Your task to perform on an android device: change text size in settings app Image 0: 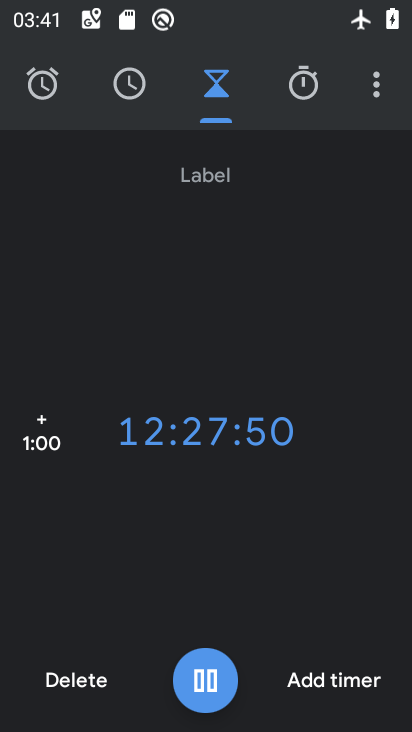
Step 0: press home button
Your task to perform on an android device: change text size in settings app Image 1: 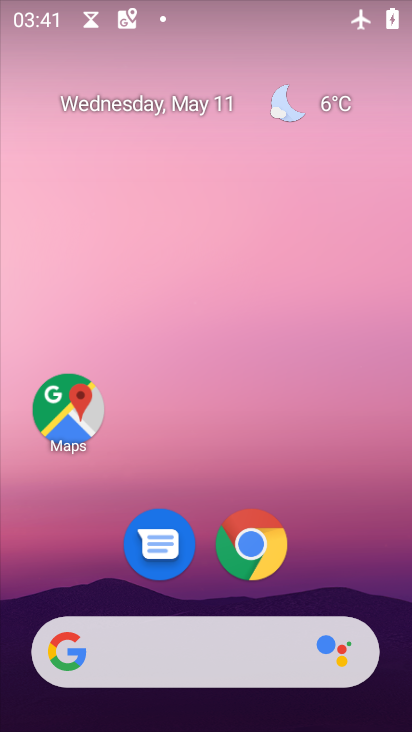
Step 1: drag from (339, 535) to (367, 98)
Your task to perform on an android device: change text size in settings app Image 2: 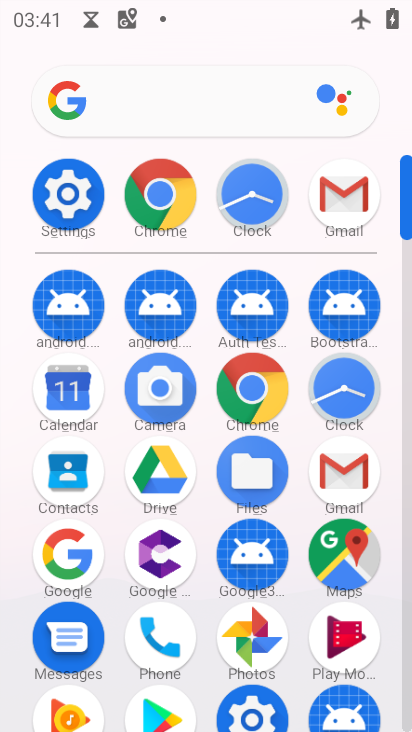
Step 2: click (76, 203)
Your task to perform on an android device: change text size in settings app Image 3: 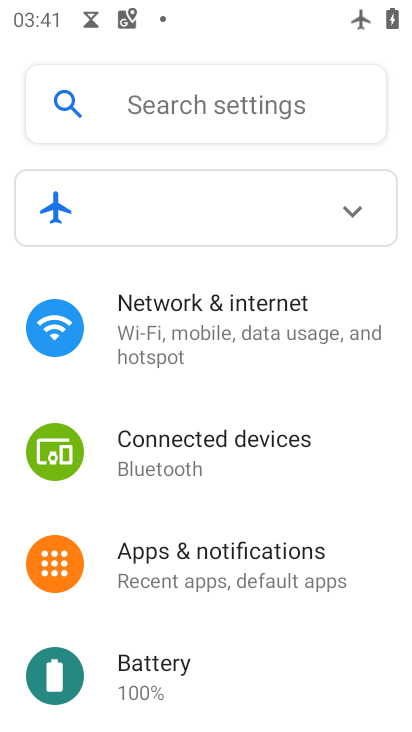
Step 3: drag from (190, 614) to (216, 443)
Your task to perform on an android device: change text size in settings app Image 4: 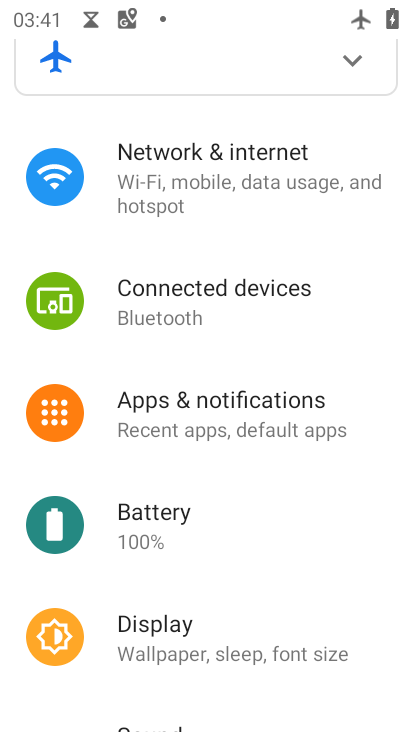
Step 4: click (226, 658)
Your task to perform on an android device: change text size in settings app Image 5: 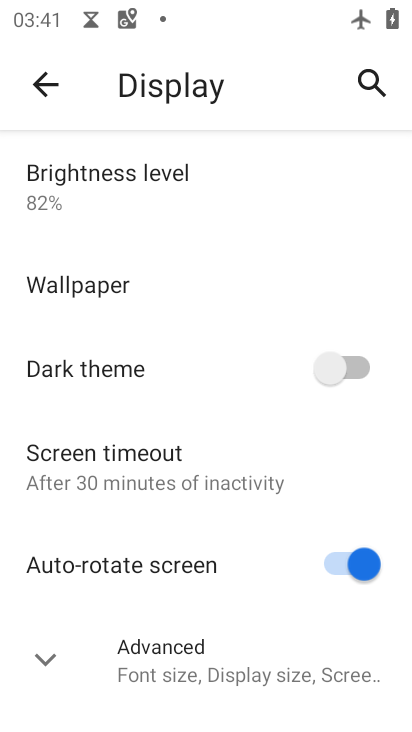
Step 5: click (225, 670)
Your task to perform on an android device: change text size in settings app Image 6: 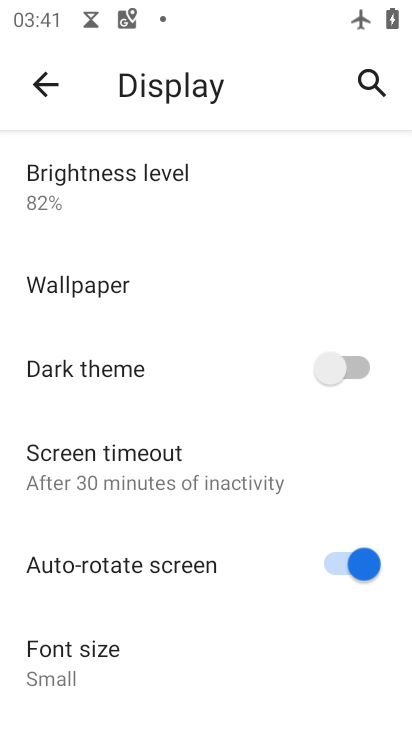
Step 6: drag from (220, 662) to (227, 353)
Your task to perform on an android device: change text size in settings app Image 7: 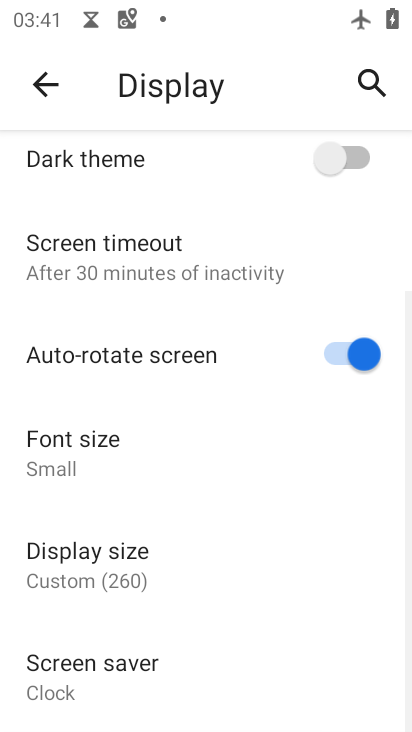
Step 7: click (138, 459)
Your task to perform on an android device: change text size in settings app Image 8: 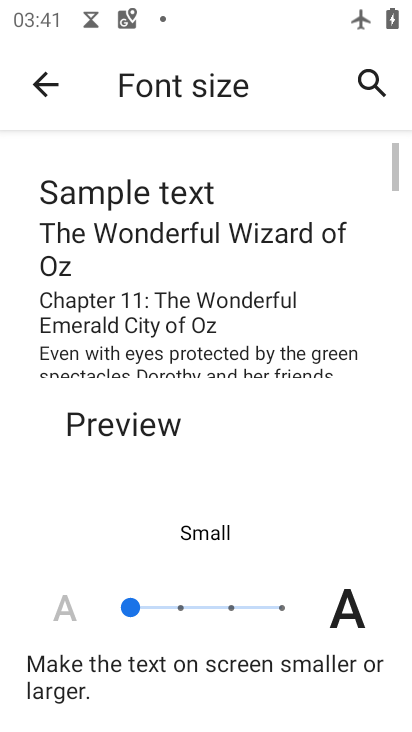
Step 8: click (227, 611)
Your task to perform on an android device: change text size in settings app Image 9: 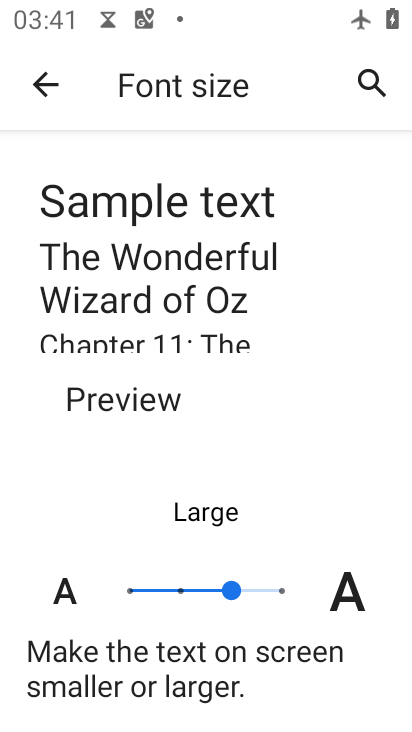
Step 9: task complete